Your task to perform on an android device: Check the news Image 0: 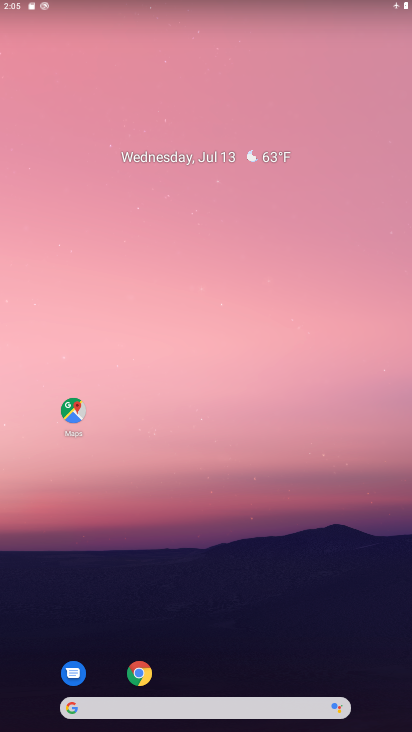
Step 0: drag from (178, 610) to (213, 320)
Your task to perform on an android device: Check the news Image 1: 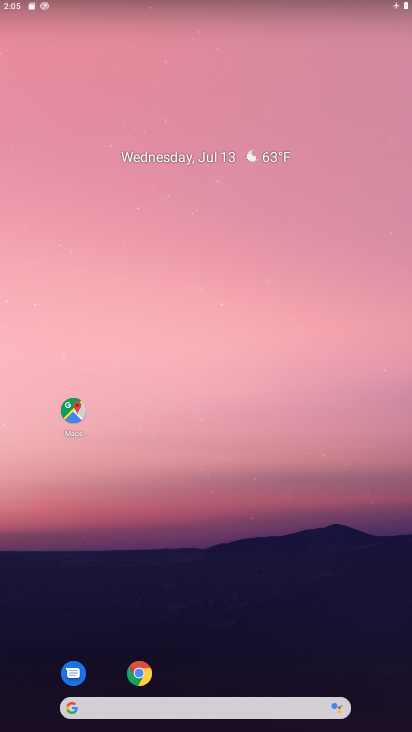
Step 1: drag from (319, 598) to (296, 181)
Your task to perform on an android device: Check the news Image 2: 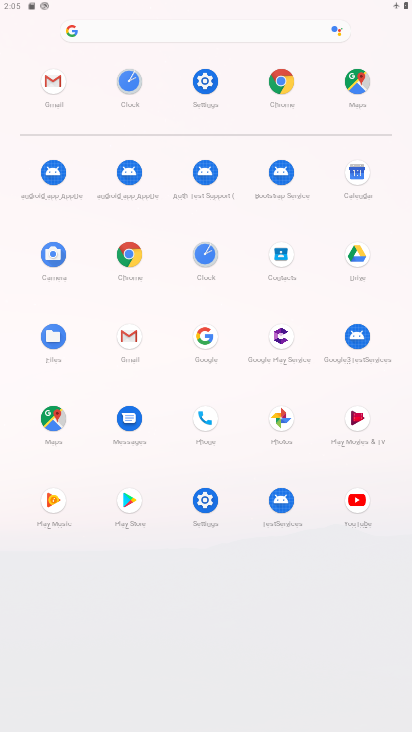
Step 2: click (277, 78)
Your task to perform on an android device: Check the news Image 3: 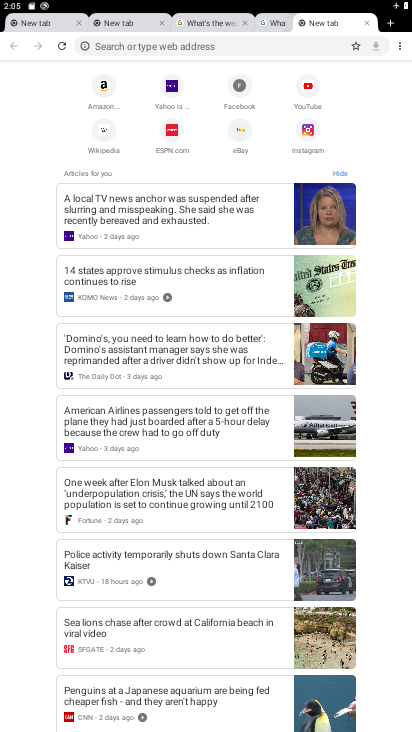
Step 3: click (208, 46)
Your task to perform on an android device: Check the news Image 4: 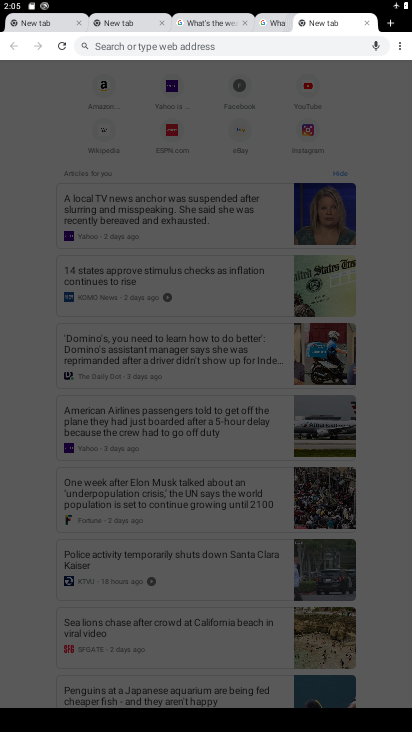
Step 4: type "Check the news "
Your task to perform on an android device: Check the news Image 5: 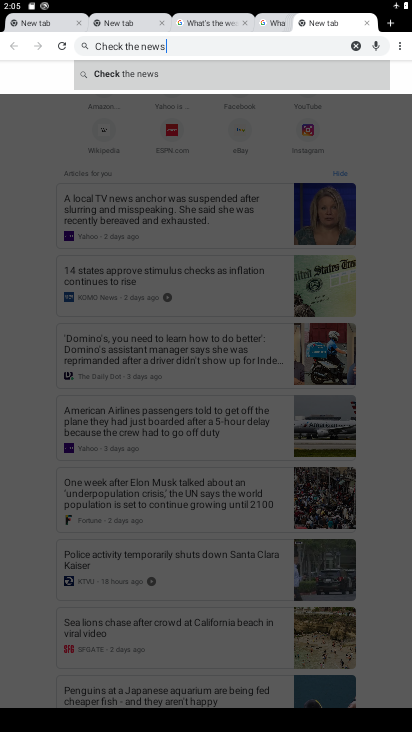
Step 5: click (193, 71)
Your task to perform on an android device: Check the news Image 6: 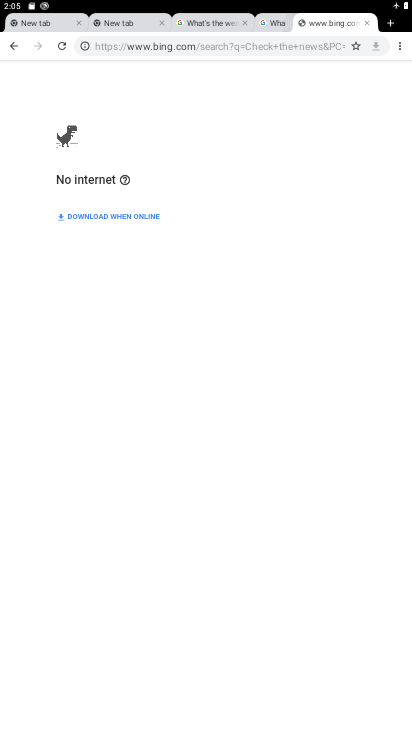
Step 6: task complete